Your task to perform on an android device: Open wifi settings Image 0: 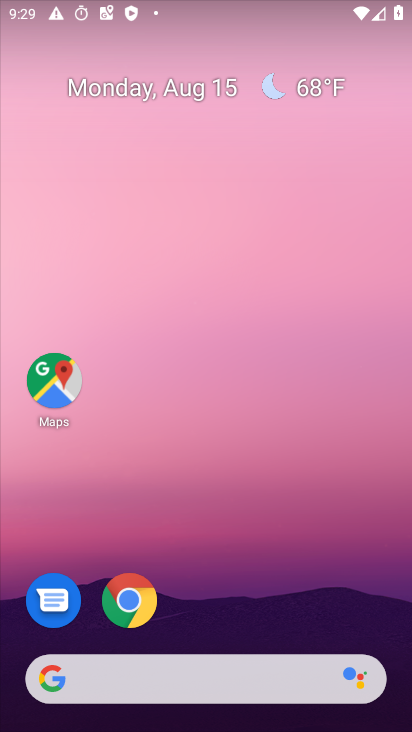
Step 0: drag from (229, 623) to (224, 70)
Your task to perform on an android device: Open wifi settings Image 1: 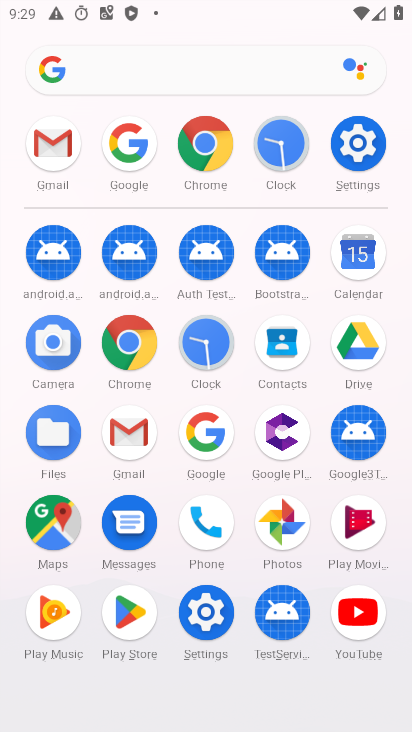
Step 1: click (353, 152)
Your task to perform on an android device: Open wifi settings Image 2: 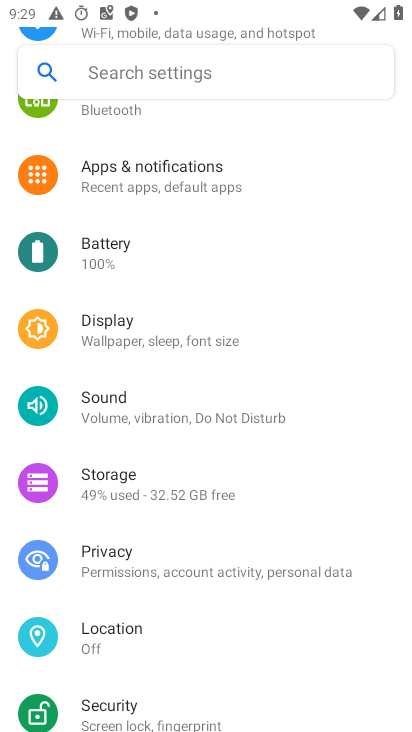
Step 2: drag from (129, 171) to (160, 585)
Your task to perform on an android device: Open wifi settings Image 3: 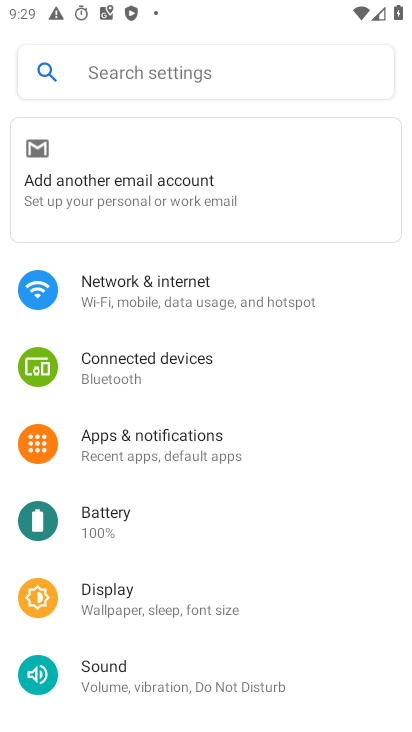
Step 3: click (147, 299)
Your task to perform on an android device: Open wifi settings Image 4: 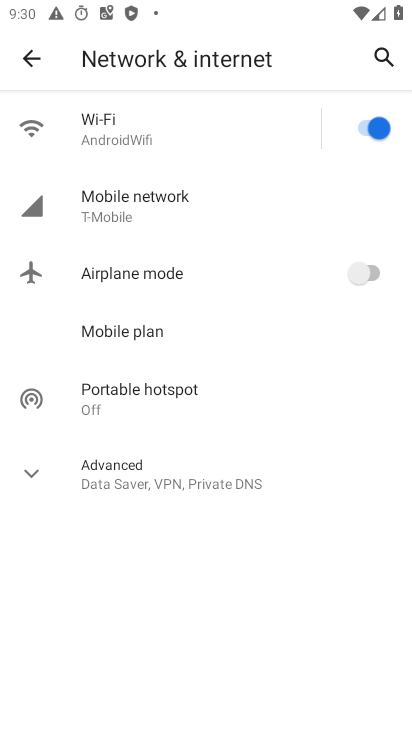
Step 4: click (106, 130)
Your task to perform on an android device: Open wifi settings Image 5: 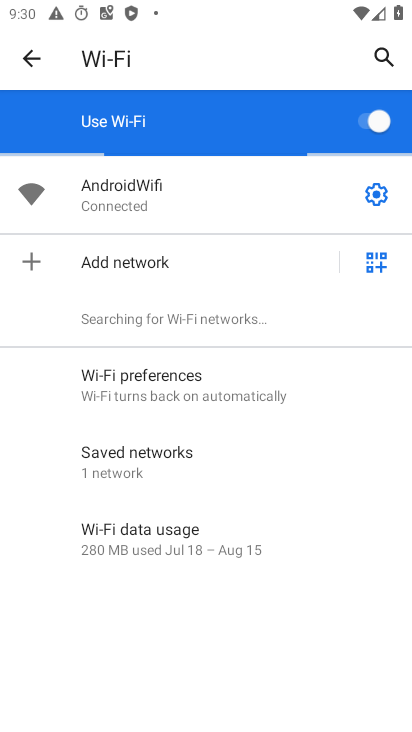
Step 5: task complete